Your task to perform on an android device: turn off picture-in-picture Image 0: 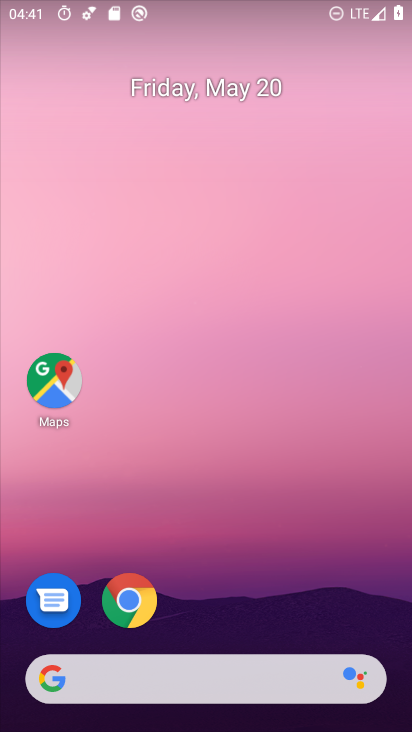
Step 0: drag from (242, 553) to (298, 15)
Your task to perform on an android device: turn off picture-in-picture Image 1: 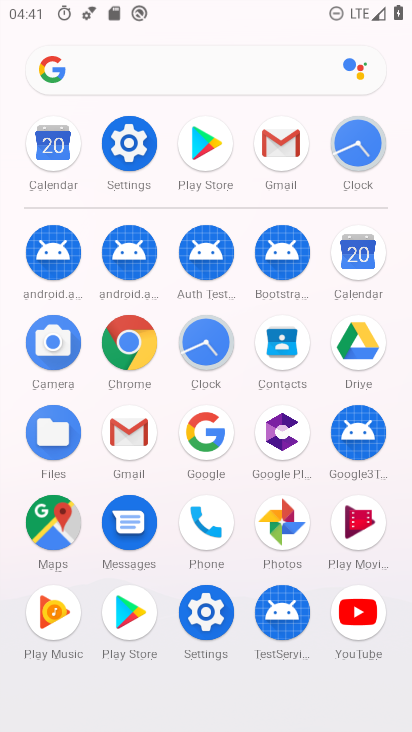
Step 1: drag from (128, 224) to (97, 61)
Your task to perform on an android device: turn off picture-in-picture Image 2: 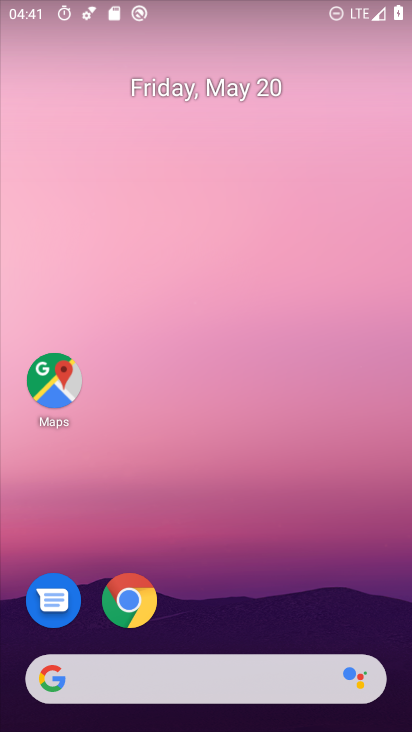
Step 2: drag from (251, 576) to (302, 70)
Your task to perform on an android device: turn off picture-in-picture Image 3: 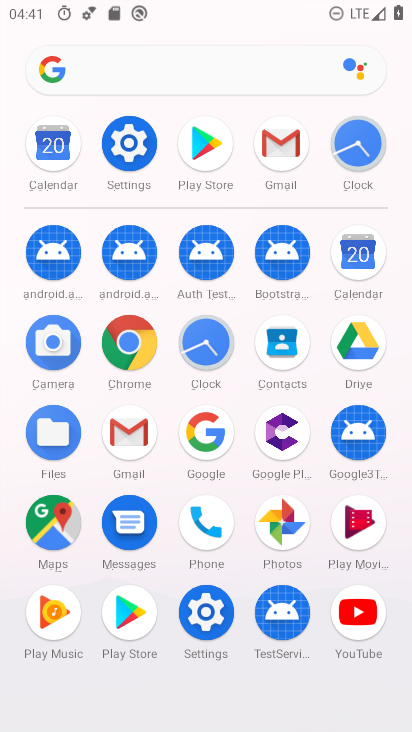
Step 3: click (131, 143)
Your task to perform on an android device: turn off picture-in-picture Image 4: 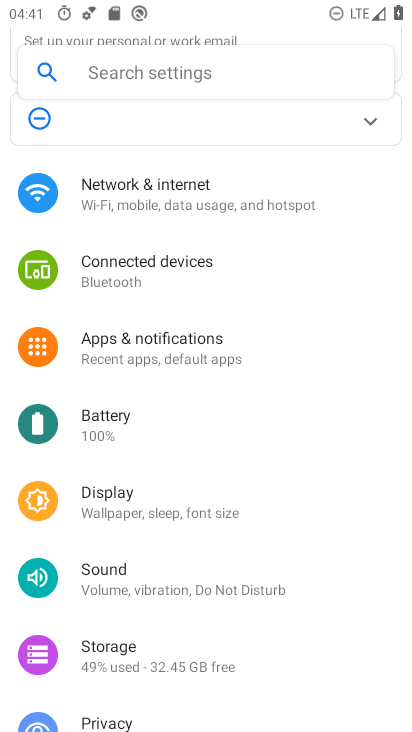
Step 4: drag from (282, 235) to (205, 549)
Your task to perform on an android device: turn off picture-in-picture Image 5: 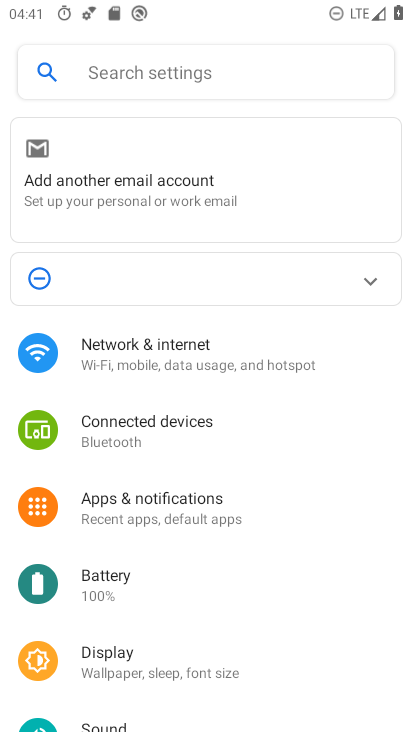
Step 5: click (184, 517)
Your task to perform on an android device: turn off picture-in-picture Image 6: 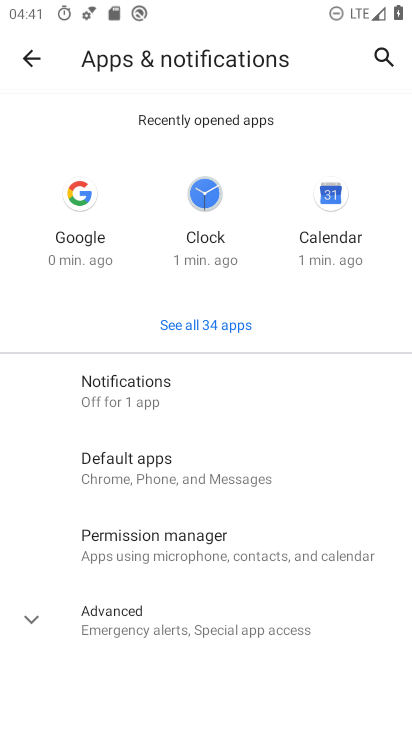
Step 6: click (126, 376)
Your task to perform on an android device: turn off picture-in-picture Image 7: 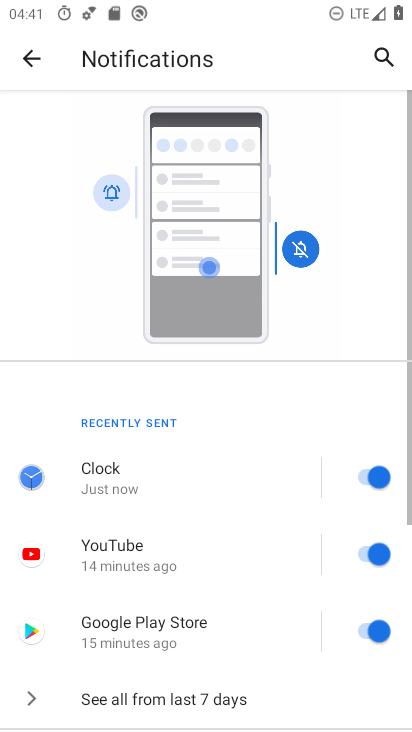
Step 7: drag from (257, 590) to (322, 46)
Your task to perform on an android device: turn off picture-in-picture Image 8: 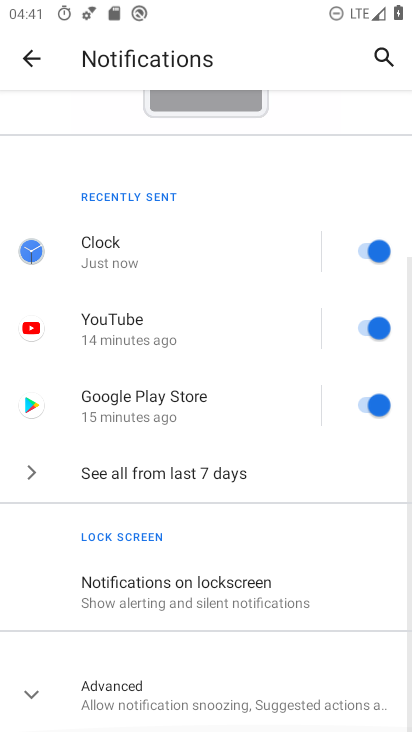
Step 8: drag from (221, 633) to (297, 103)
Your task to perform on an android device: turn off picture-in-picture Image 9: 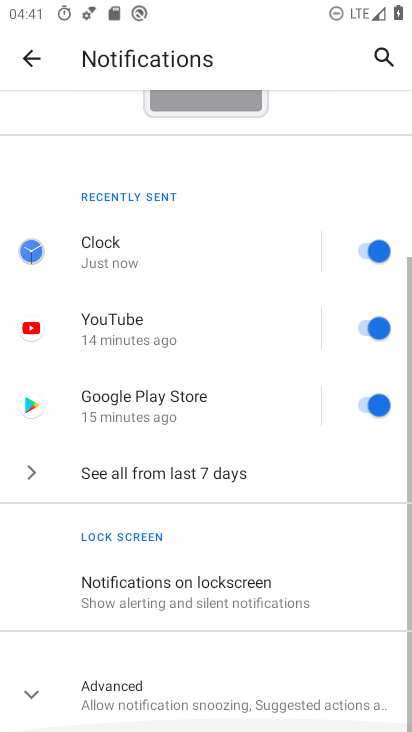
Step 9: click (122, 701)
Your task to perform on an android device: turn off picture-in-picture Image 10: 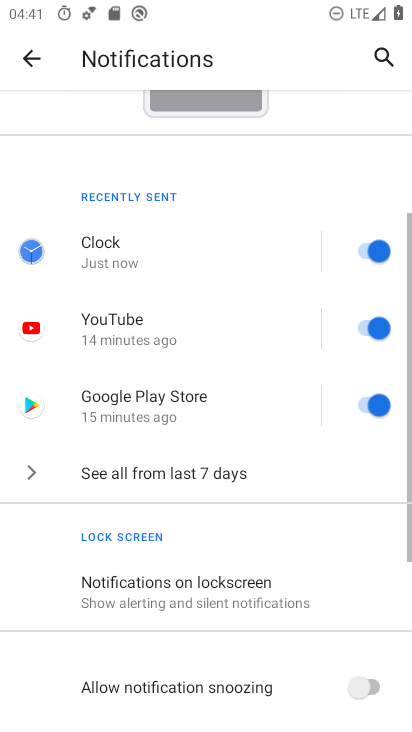
Step 10: drag from (187, 661) to (267, 75)
Your task to perform on an android device: turn off picture-in-picture Image 11: 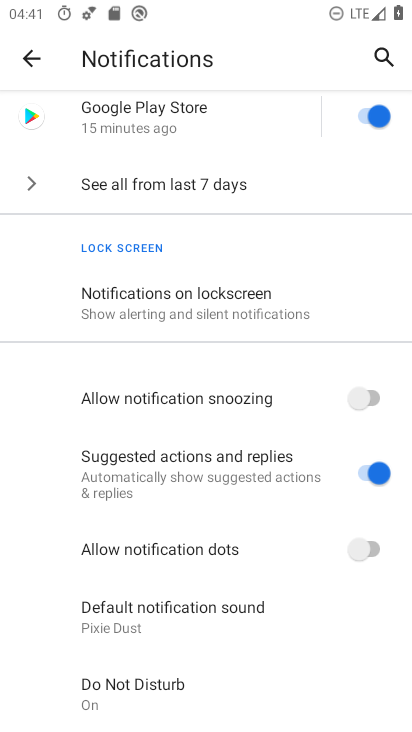
Step 11: drag from (195, 639) to (248, 224)
Your task to perform on an android device: turn off picture-in-picture Image 12: 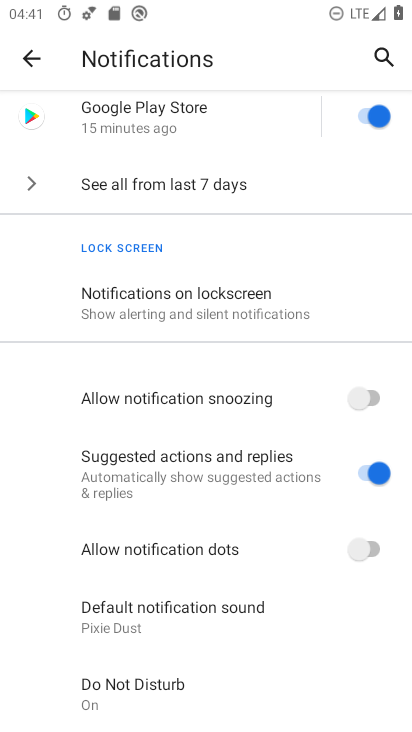
Step 12: click (34, 46)
Your task to perform on an android device: turn off picture-in-picture Image 13: 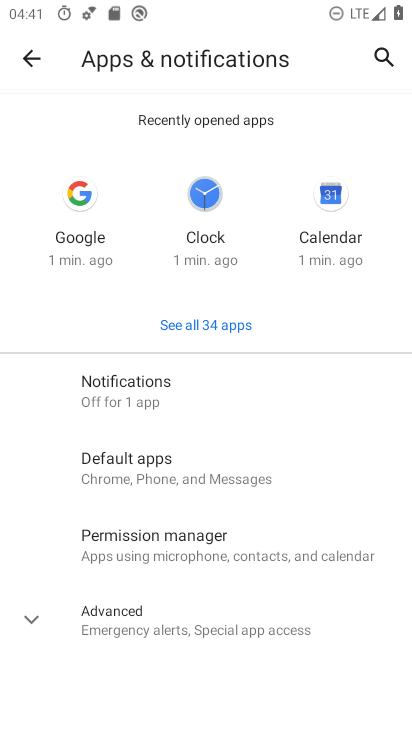
Step 13: drag from (207, 681) to (299, 155)
Your task to perform on an android device: turn off picture-in-picture Image 14: 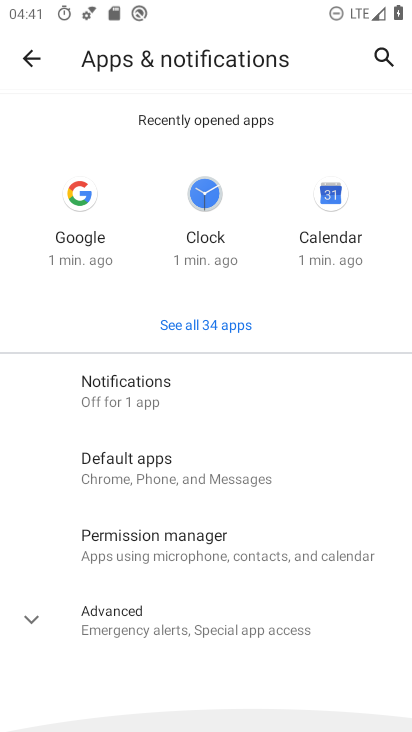
Step 14: click (188, 630)
Your task to perform on an android device: turn off picture-in-picture Image 15: 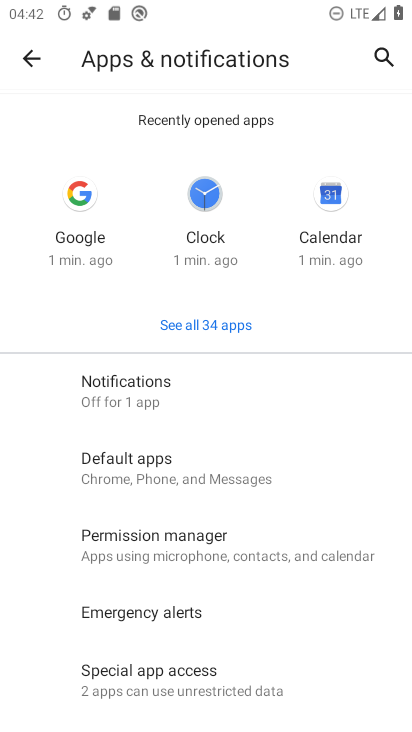
Step 15: drag from (176, 647) to (282, 85)
Your task to perform on an android device: turn off picture-in-picture Image 16: 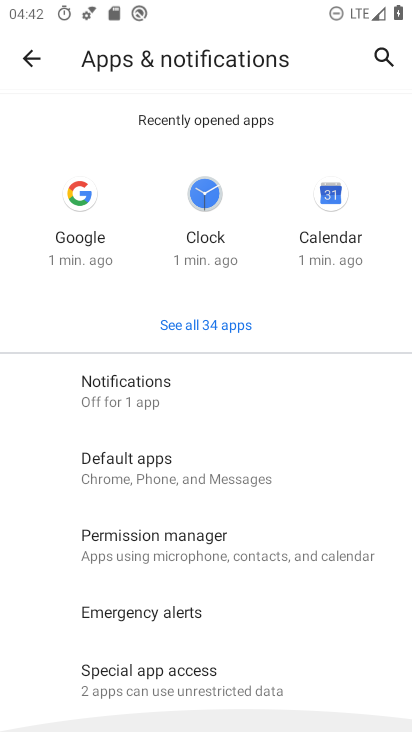
Step 16: click (135, 682)
Your task to perform on an android device: turn off picture-in-picture Image 17: 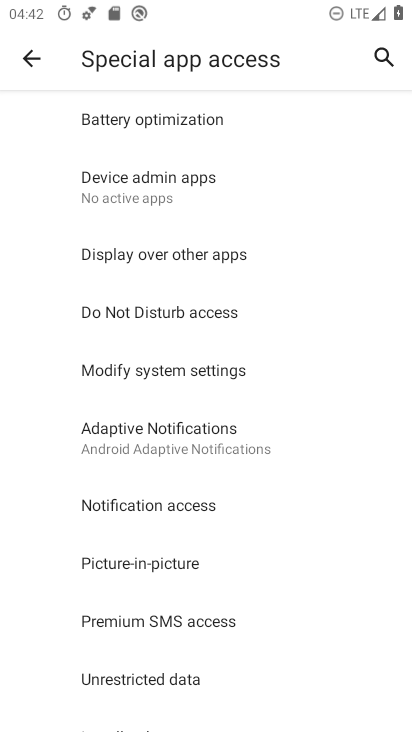
Step 17: click (157, 562)
Your task to perform on an android device: turn off picture-in-picture Image 18: 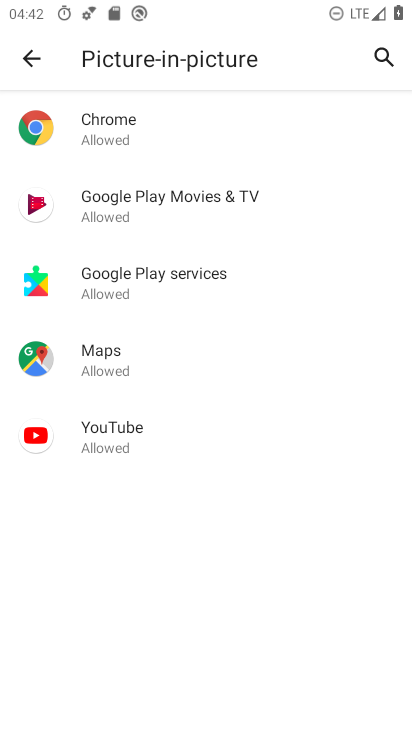
Step 18: click (90, 117)
Your task to perform on an android device: turn off picture-in-picture Image 19: 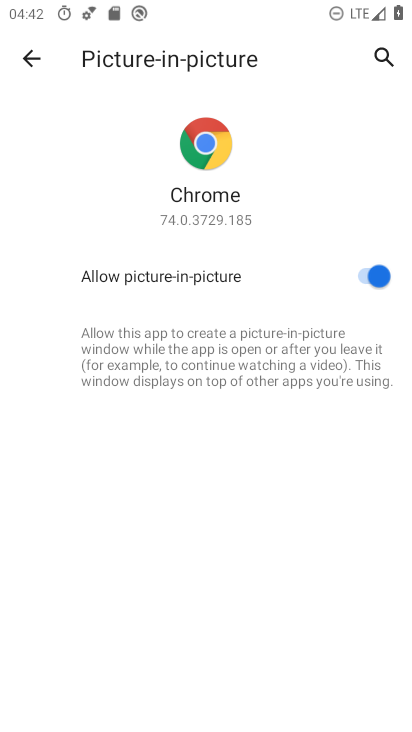
Step 19: click (377, 281)
Your task to perform on an android device: turn off picture-in-picture Image 20: 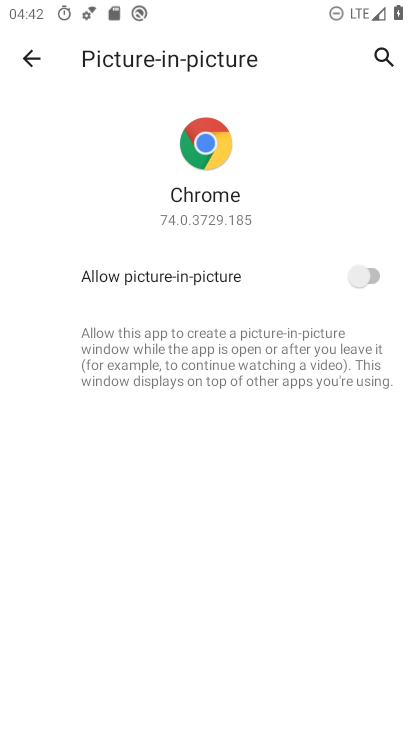
Step 20: task complete